Your task to perform on an android device: turn vacation reply on in the gmail app Image 0: 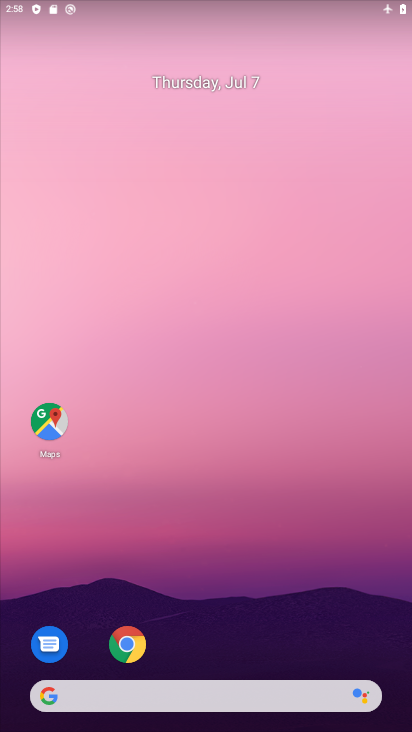
Step 0: drag from (220, 660) to (129, 287)
Your task to perform on an android device: turn vacation reply on in the gmail app Image 1: 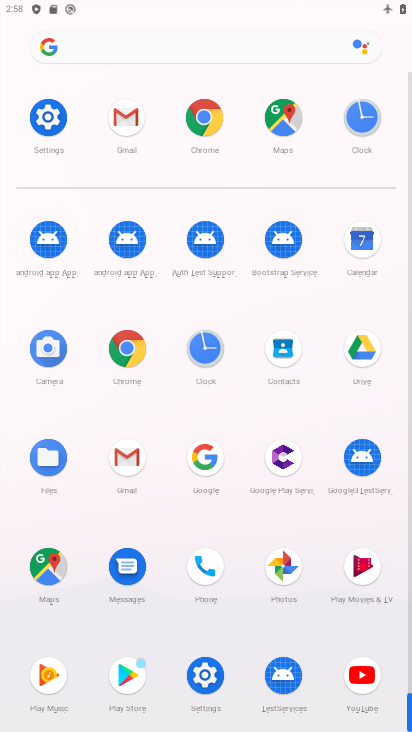
Step 1: click (124, 121)
Your task to perform on an android device: turn vacation reply on in the gmail app Image 2: 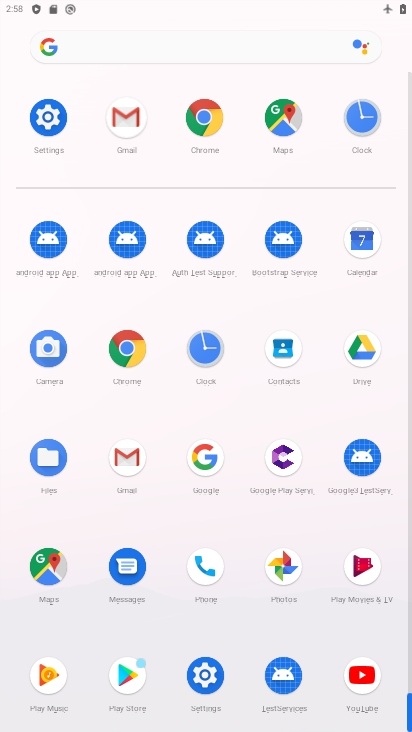
Step 2: click (124, 121)
Your task to perform on an android device: turn vacation reply on in the gmail app Image 3: 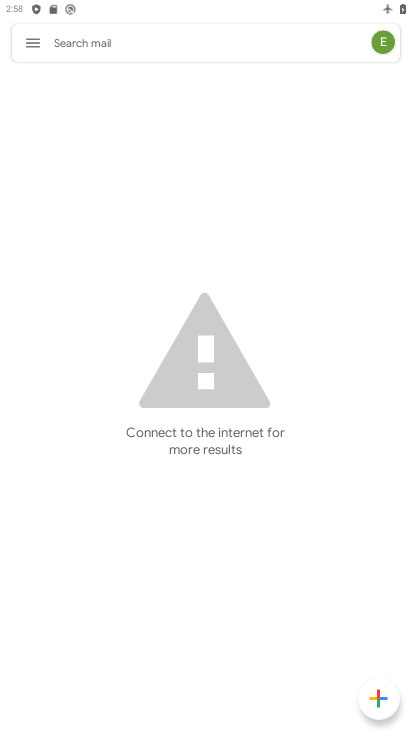
Step 3: click (35, 45)
Your task to perform on an android device: turn vacation reply on in the gmail app Image 4: 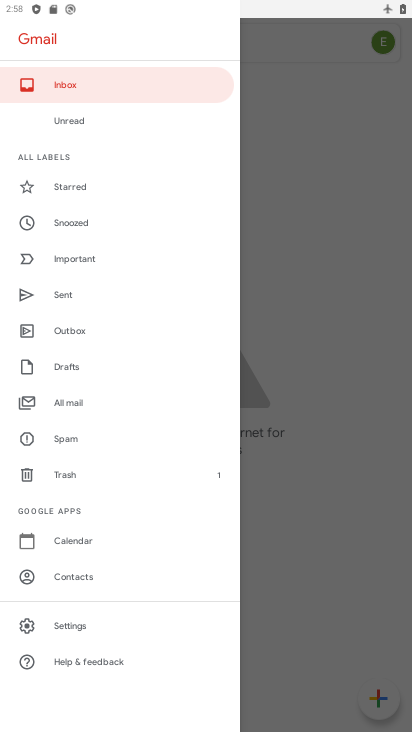
Step 4: click (75, 617)
Your task to perform on an android device: turn vacation reply on in the gmail app Image 5: 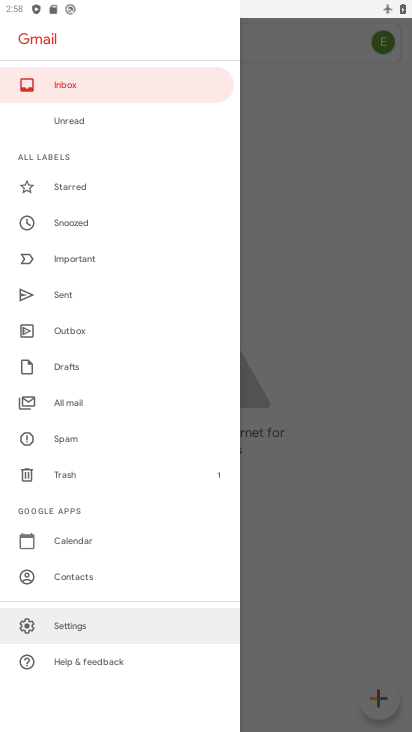
Step 5: click (75, 617)
Your task to perform on an android device: turn vacation reply on in the gmail app Image 6: 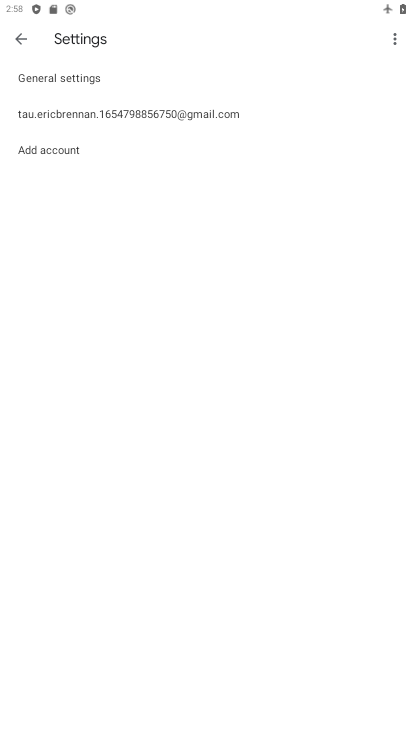
Step 6: click (130, 122)
Your task to perform on an android device: turn vacation reply on in the gmail app Image 7: 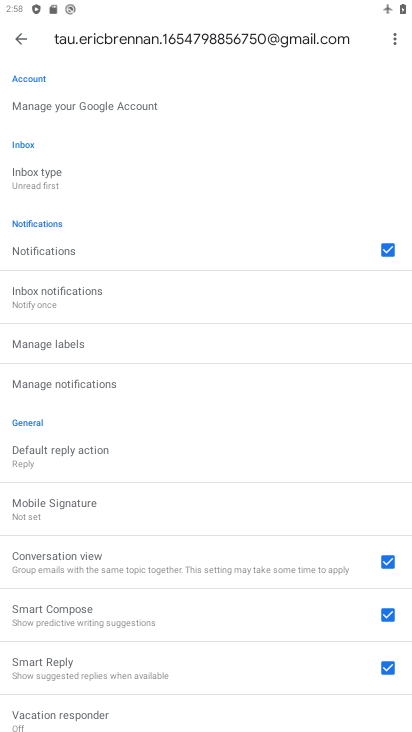
Step 7: drag from (72, 637) to (54, 297)
Your task to perform on an android device: turn vacation reply on in the gmail app Image 8: 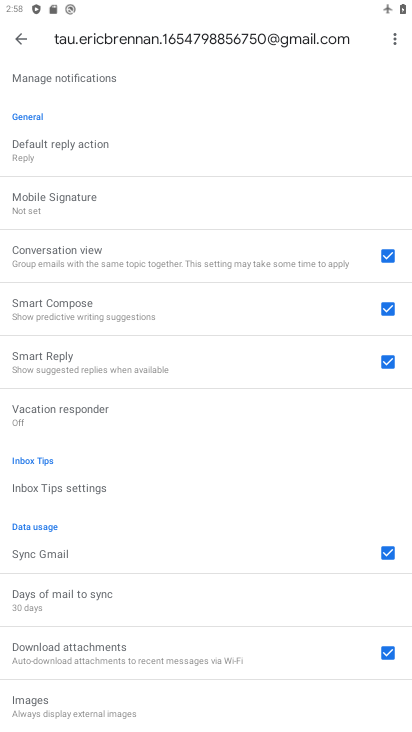
Step 8: click (89, 413)
Your task to perform on an android device: turn vacation reply on in the gmail app Image 9: 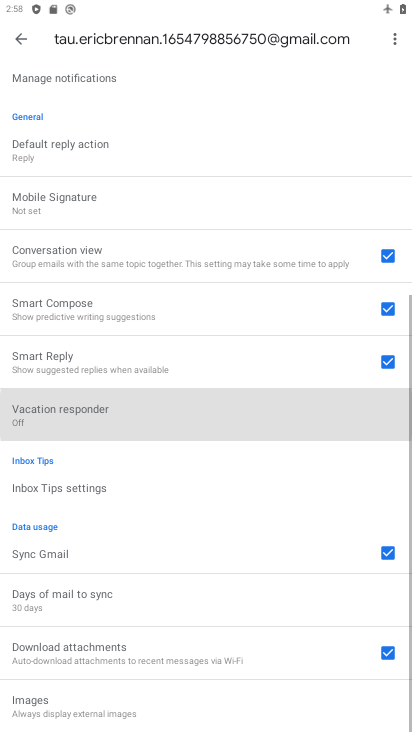
Step 9: click (89, 413)
Your task to perform on an android device: turn vacation reply on in the gmail app Image 10: 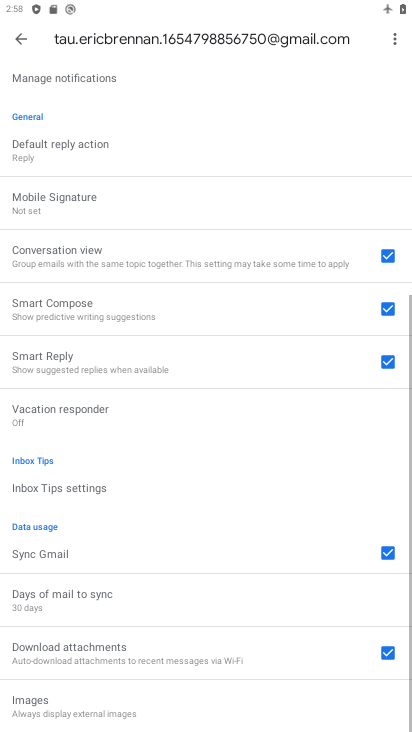
Step 10: click (89, 413)
Your task to perform on an android device: turn vacation reply on in the gmail app Image 11: 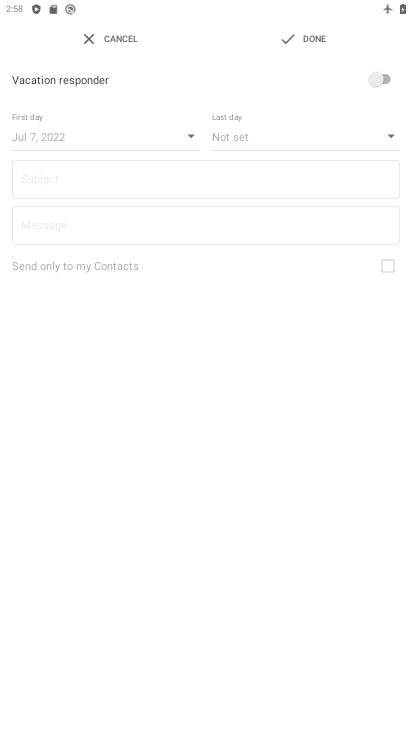
Step 11: click (374, 73)
Your task to perform on an android device: turn vacation reply on in the gmail app Image 12: 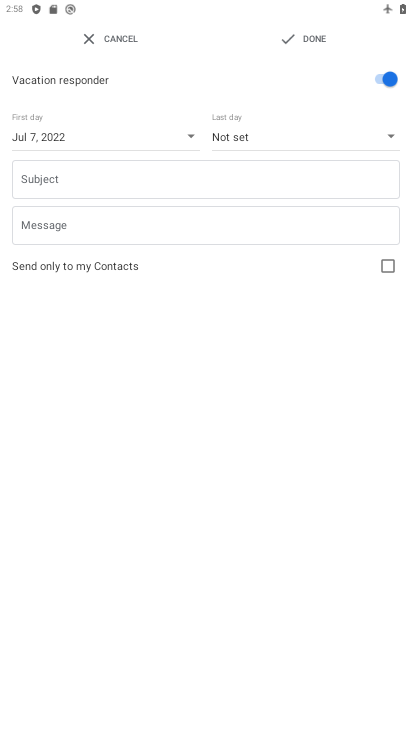
Step 12: task complete